Your task to perform on an android device: delete browsing data in the chrome app Image 0: 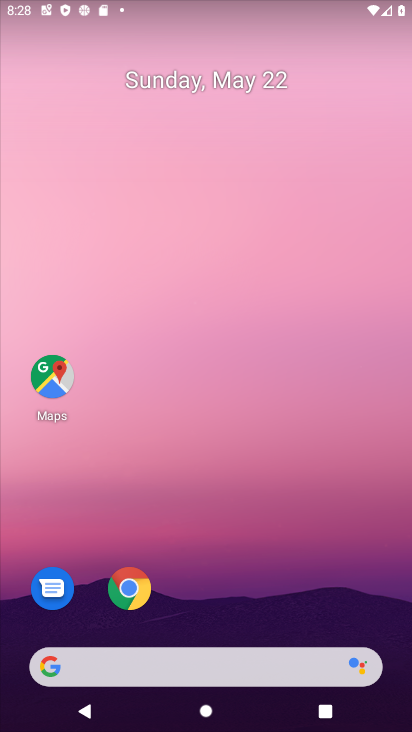
Step 0: click (130, 588)
Your task to perform on an android device: delete browsing data in the chrome app Image 1: 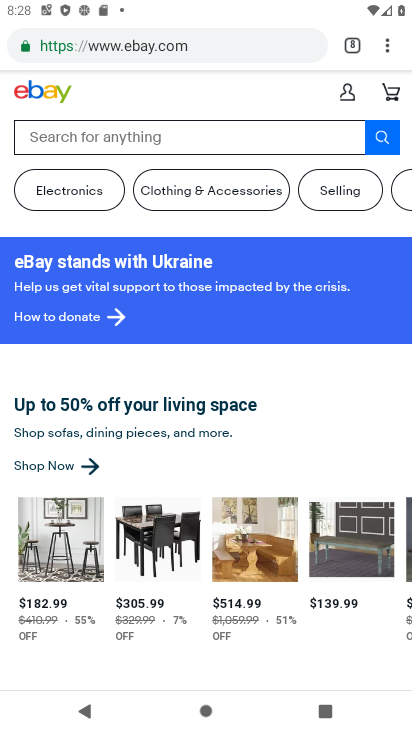
Step 1: click (385, 44)
Your task to perform on an android device: delete browsing data in the chrome app Image 2: 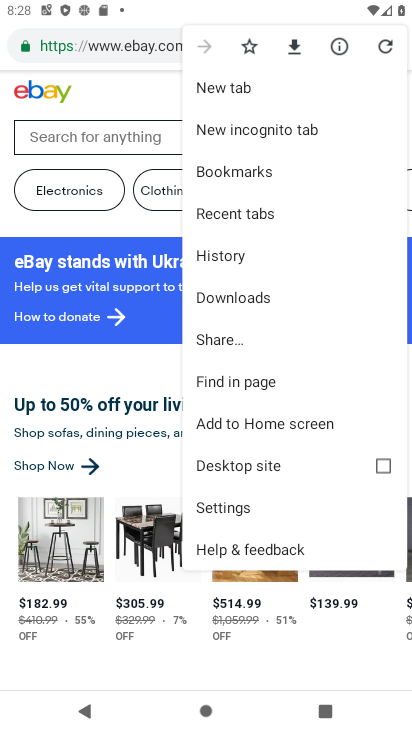
Step 2: click (226, 257)
Your task to perform on an android device: delete browsing data in the chrome app Image 3: 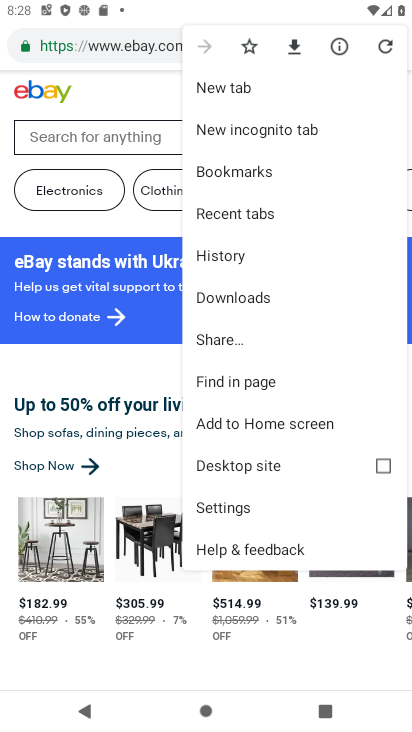
Step 3: click (226, 257)
Your task to perform on an android device: delete browsing data in the chrome app Image 4: 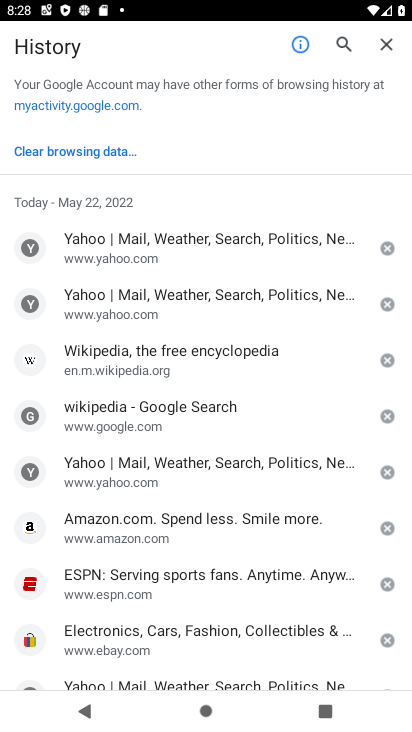
Step 4: click (73, 146)
Your task to perform on an android device: delete browsing data in the chrome app Image 5: 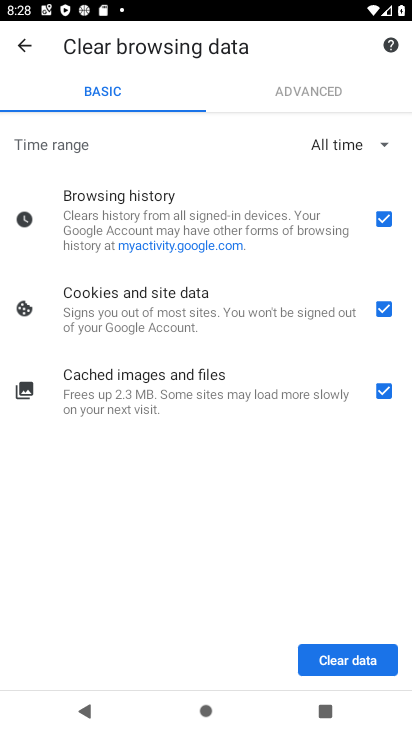
Step 5: click (347, 657)
Your task to perform on an android device: delete browsing data in the chrome app Image 6: 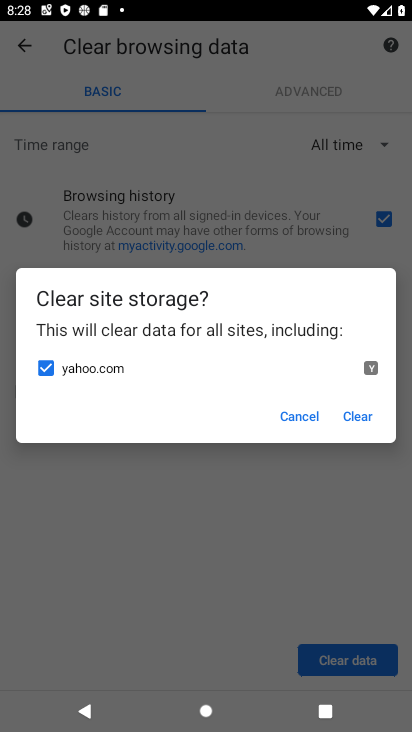
Step 6: click (357, 418)
Your task to perform on an android device: delete browsing data in the chrome app Image 7: 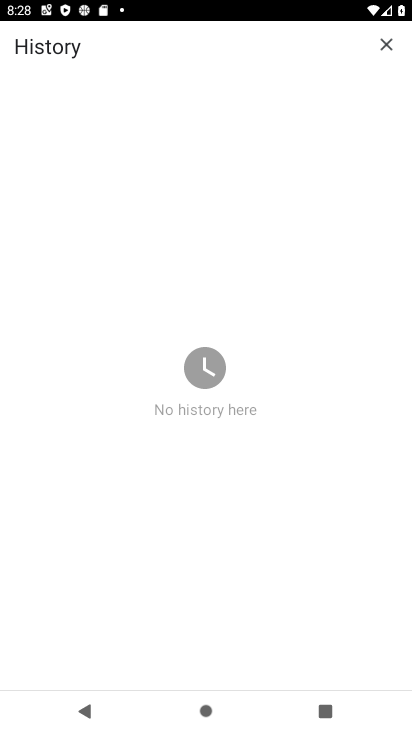
Step 7: task complete